Your task to perform on an android device: Toggle the flashlight Image 0: 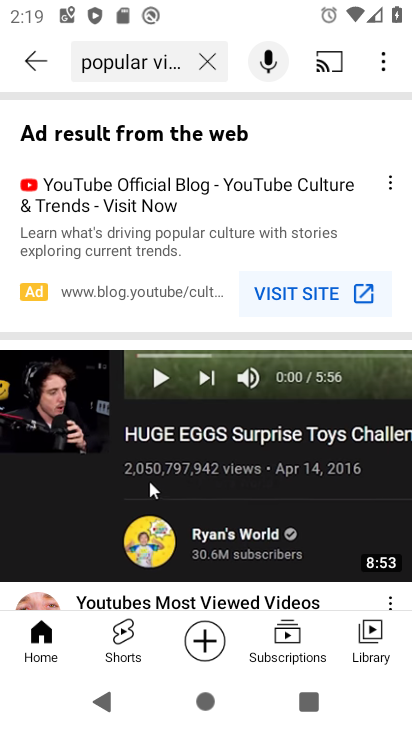
Step 0: press home button
Your task to perform on an android device: Toggle the flashlight Image 1: 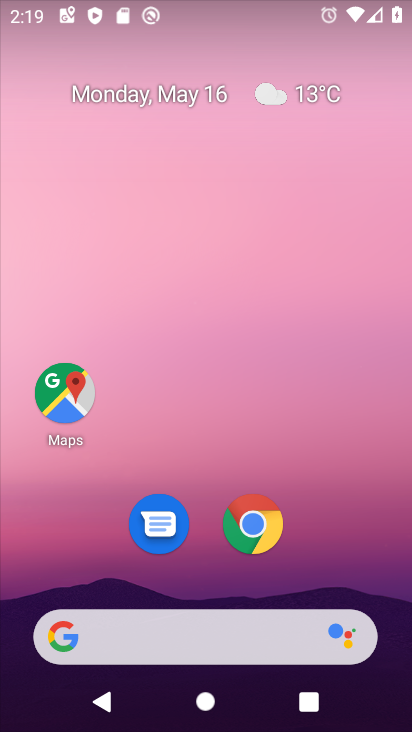
Step 1: drag from (217, 440) to (224, 46)
Your task to perform on an android device: Toggle the flashlight Image 2: 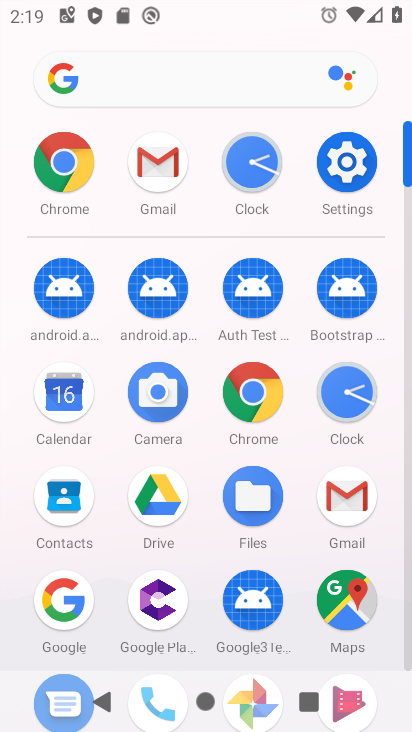
Step 2: click (329, 157)
Your task to perform on an android device: Toggle the flashlight Image 3: 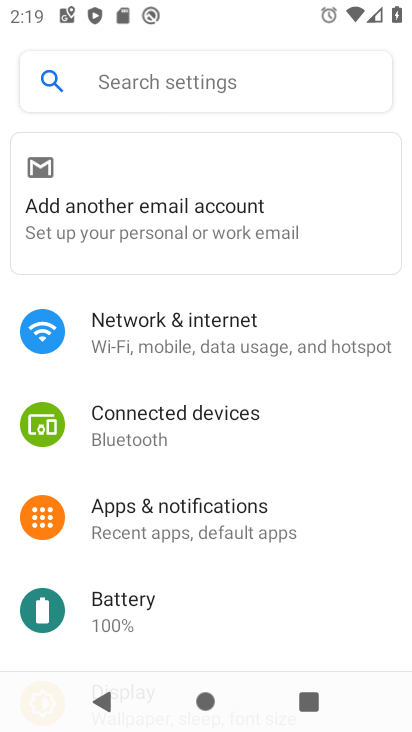
Step 3: click (265, 69)
Your task to perform on an android device: Toggle the flashlight Image 4: 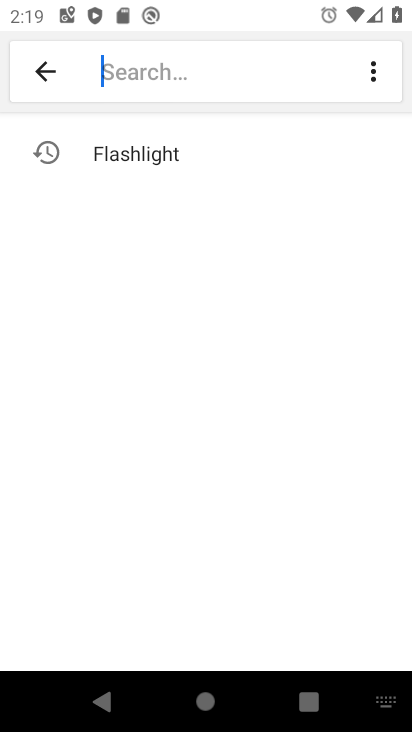
Step 4: click (154, 158)
Your task to perform on an android device: Toggle the flashlight Image 5: 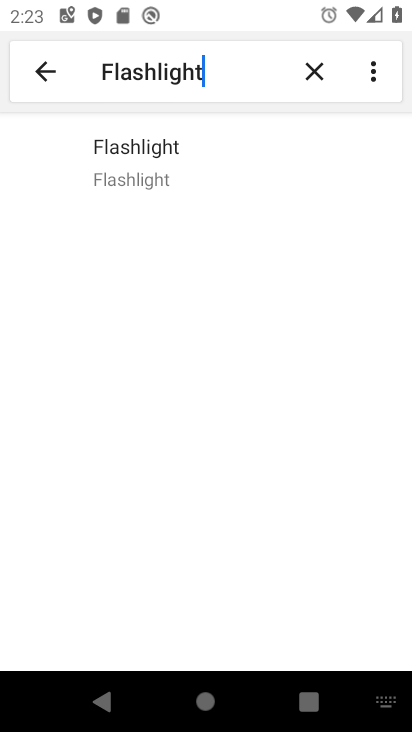
Step 5: task complete